Your task to perform on an android device: toggle data saver in the chrome app Image 0: 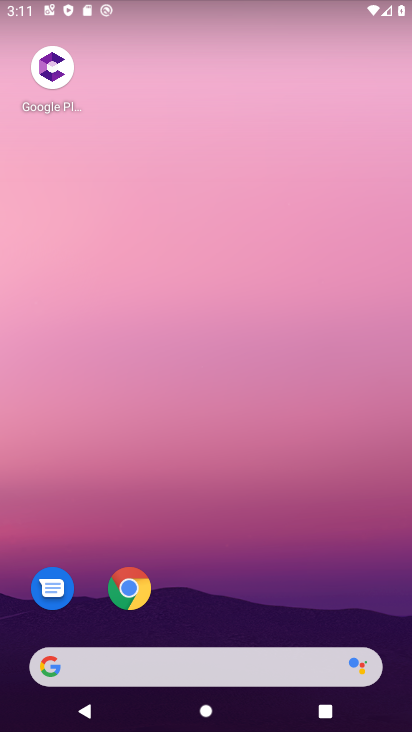
Step 0: click (141, 596)
Your task to perform on an android device: toggle data saver in the chrome app Image 1: 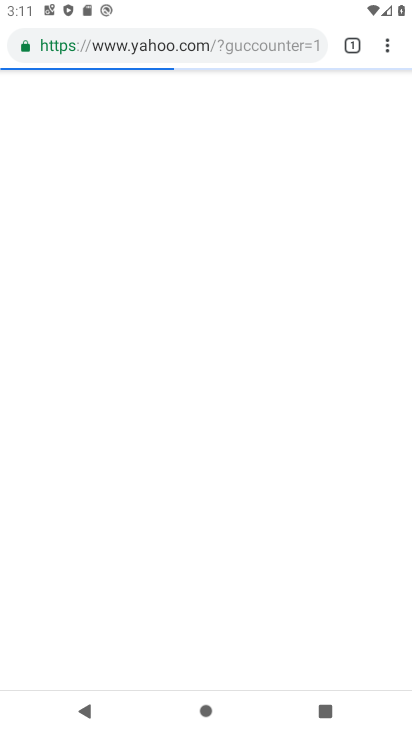
Step 1: click (383, 42)
Your task to perform on an android device: toggle data saver in the chrome app Image 2: 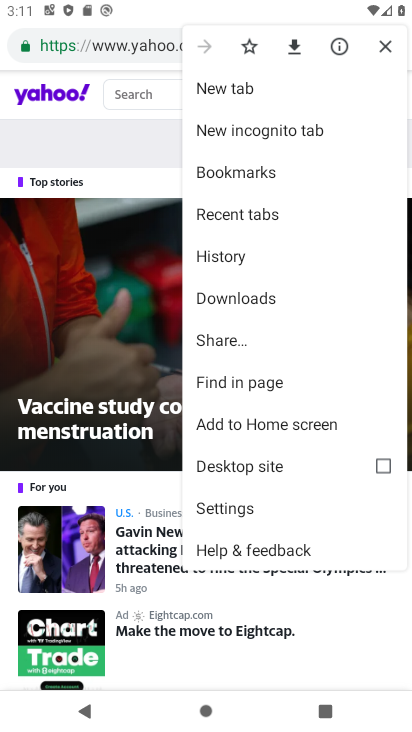
Step 2: click (246, 518)
Your task to perform on an android device: toggle data saver in the chrome app Image 3: 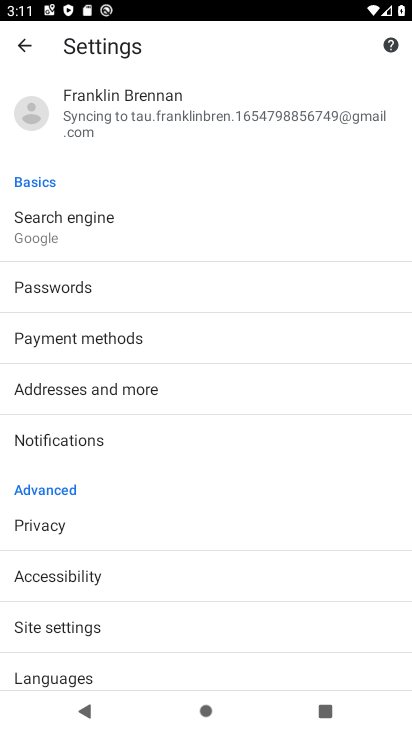
Step 3: drag from (196, 515) to (157, 121)
Your task to perform on an android device: toggle data saver in the chrome app Image 4: 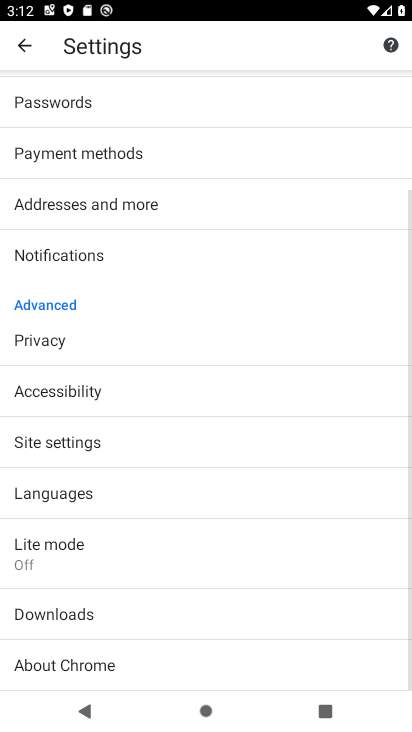
Step 4: click (169, 540)
Your task to perform on an android device: toggle data saver in the chrome app Image 5: 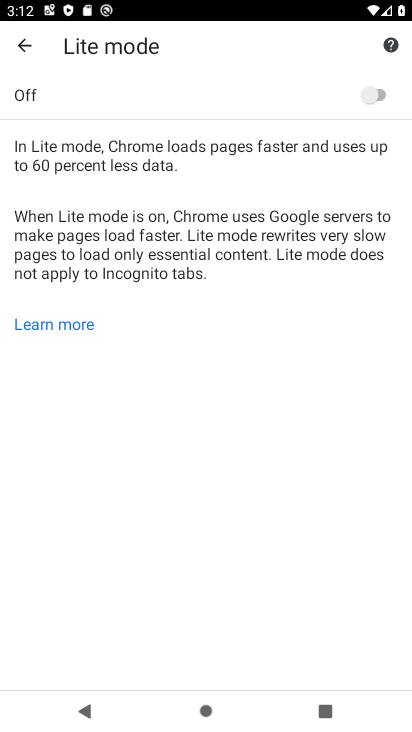
Step 5: click (370, 110)
Your task to perform on an android device: toggle data saver in the chrome app Image 6: 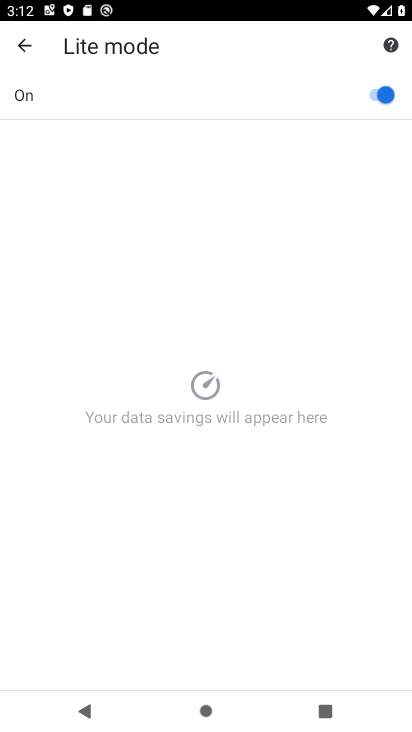
Step 6: task complete